Your task to perform on an android device: turn on data saver in the chrome app Image 0: 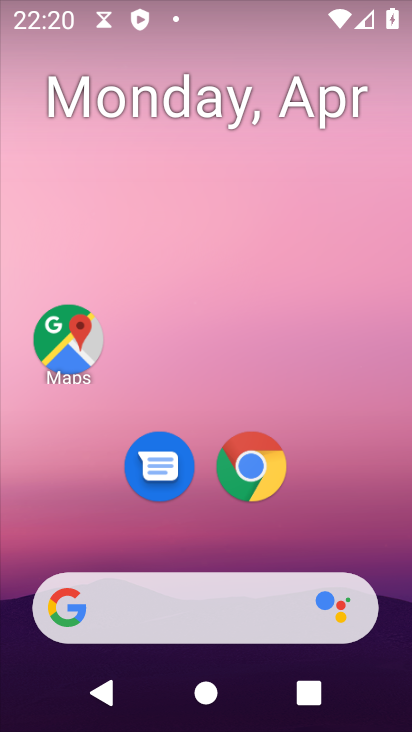
Step 0: click (252, 473)
Your task to perform on an android device: turn on data saver in the chrome app Image 1: 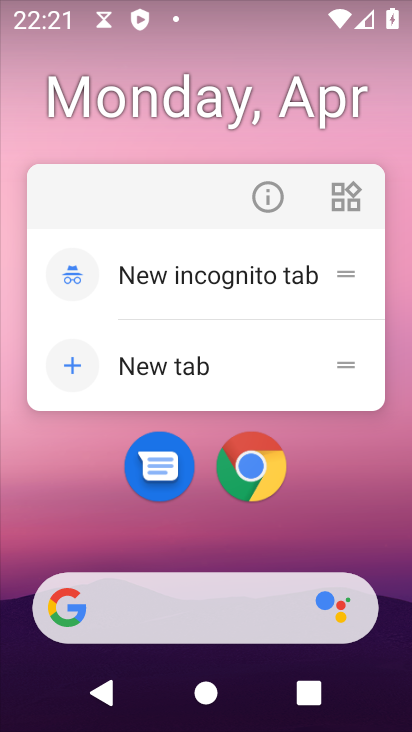
Step 1: click (236, 488)
Your task to perform on an android device: turn on data saver in the chrome app Image 2: 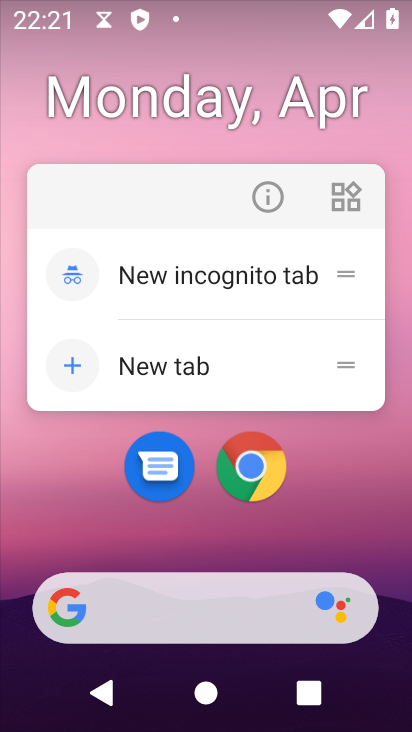
Step 2: click (264, 468)
Your task to perform on an android device: turn on data saver in the chrome app Image 3: 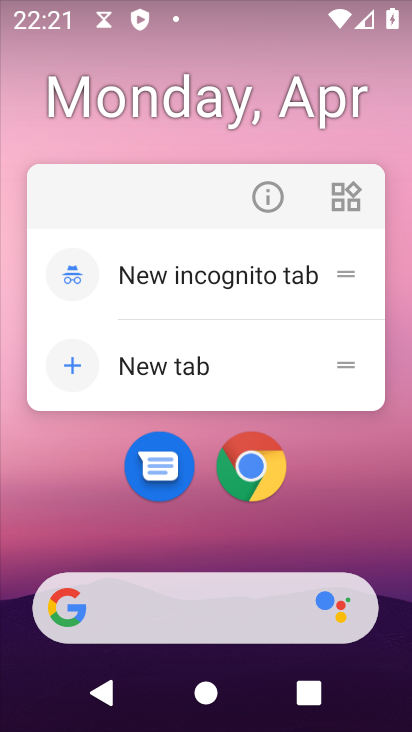
Step 3: click (311, 488)
Your task to perform on an android device: turn on data saver in the chrome app Image 4: 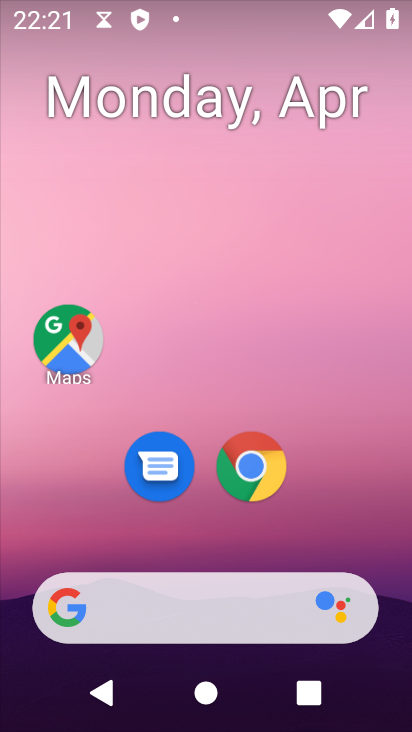
Step 4: click (284, 466)
Your task to perform on an android device: turn on data saver in the chrome app Image 5: 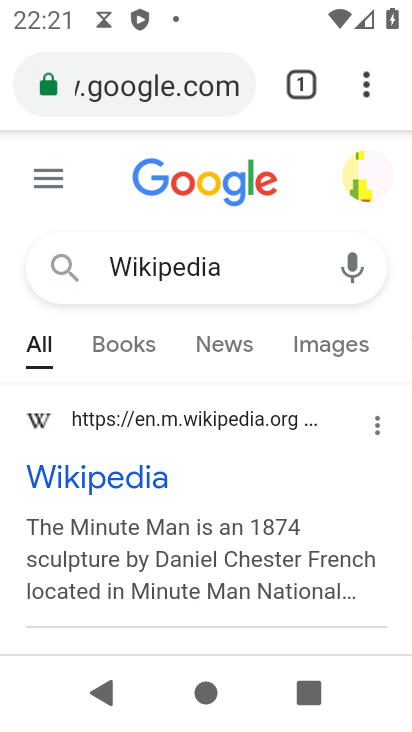
Step 5: click (367, 84)
Your task to perform on an android device: turn on data saver in the chrome app Image 6: 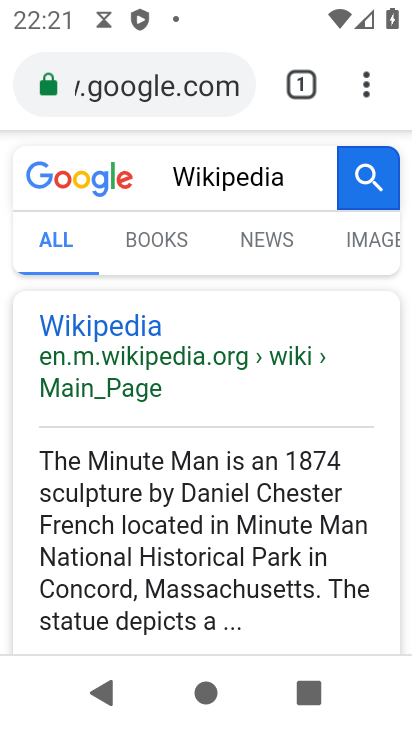
Step 6: click (367, 84)
Your task to perform on an android device: turn on data saver in the chrome app Image 7: 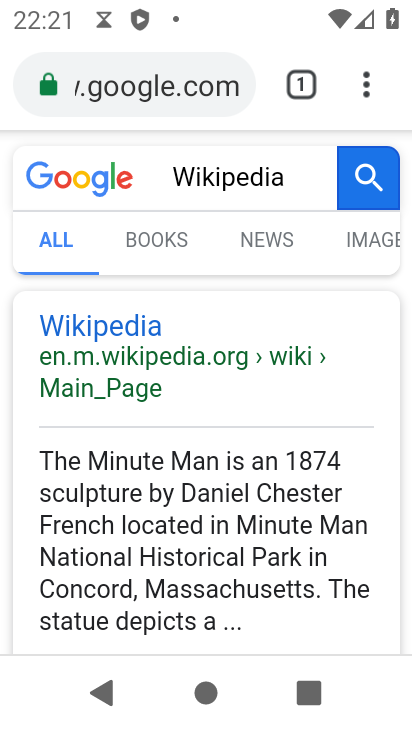
Step 7: click (367, 84)
Your task to perform on an android device: turn on data saver in the chrome app Image 8: 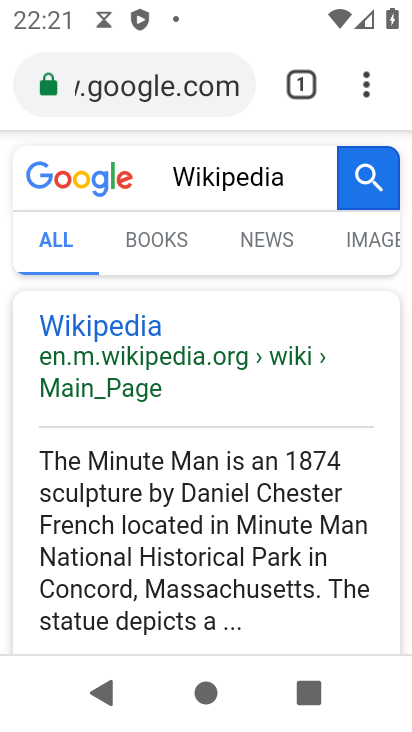
Step 8: click (367, 84)
Your task to perform on an android device: turn on data saver in the chrome app Image 9: 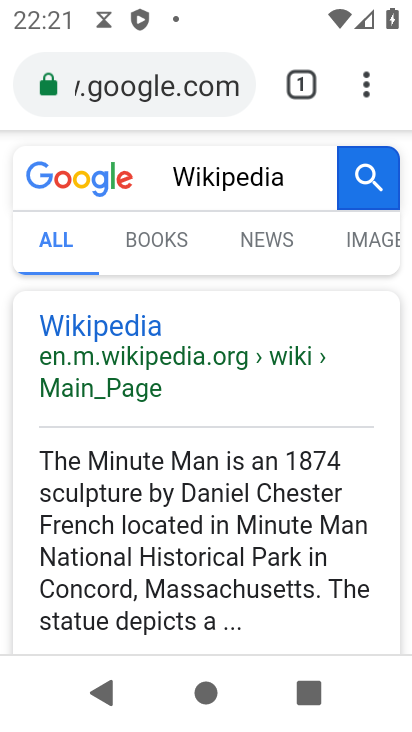
Step 9: click (367, 84)
Your task to perform on an android device: turn on data saver in the chrome app Image 10: 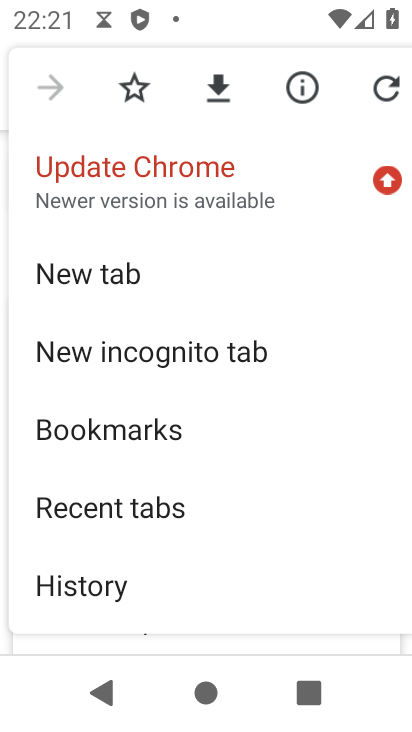
Step 10: drag from (120, 480) to (98, 242)
Your task to perform on an android device: turn on data saver in the chrome app Image 11: 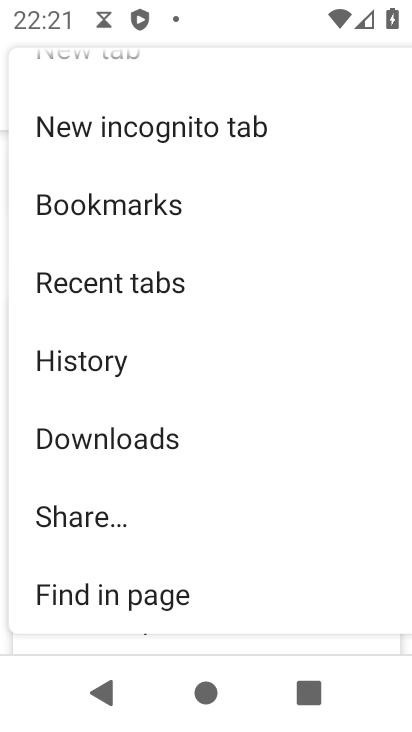
Step 11: drag from (92, 478) to (102, 234)
Your task to perform on an android device: turn on data saver in the chrome app Image 12: 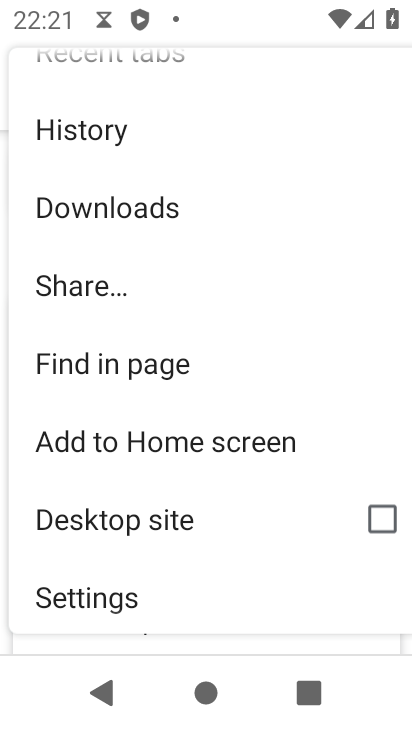
Step 12: drag from (109, 565) to (107, 312)
Your task to perform on an android device: turn on data saver in the chrome app Image 13: 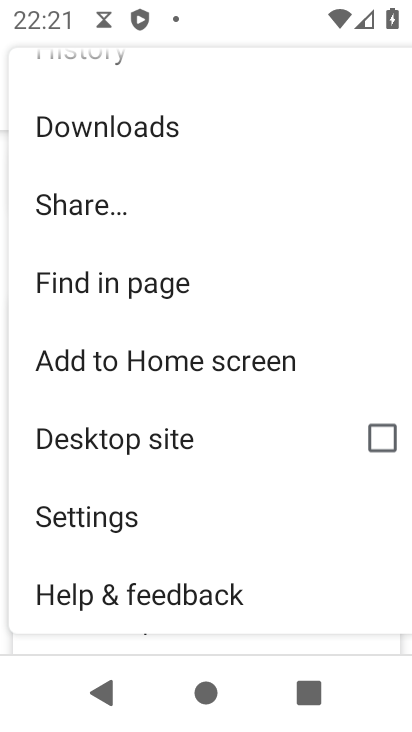
Step 13: drag from (133, 468) to (151, 256)
Your task to perform on an android device: turn on data saver in the chrome app Image 14: 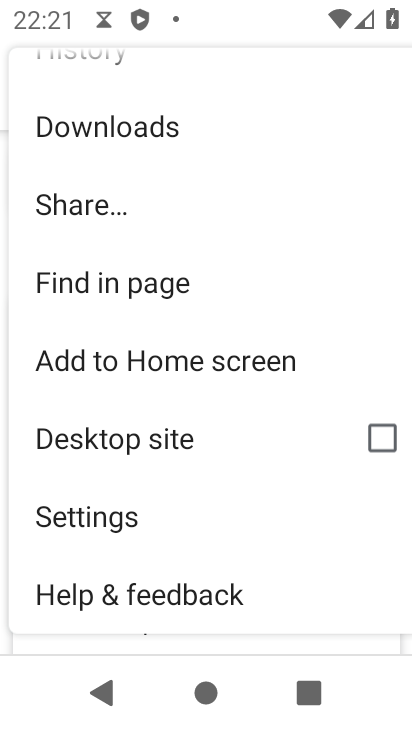
Step 14: click (111, 530)
Your task to perform on an android device: turn on data saver in the chrome app Image 15: 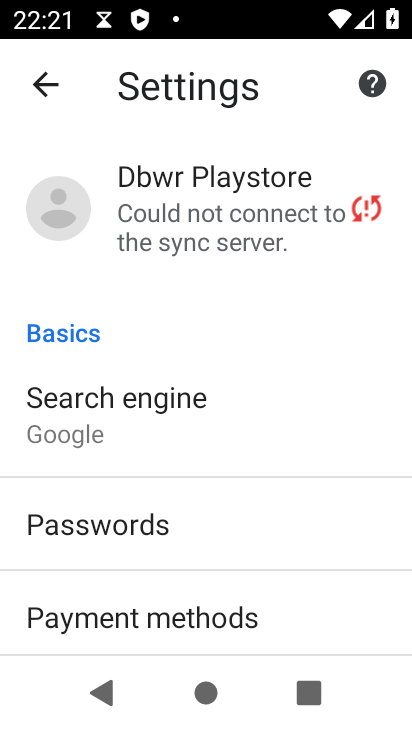
Step 15: drag from (110, 481) to (126, 297)
Your task to perform on an android device: turn on data saver in the chrome app Image 16: 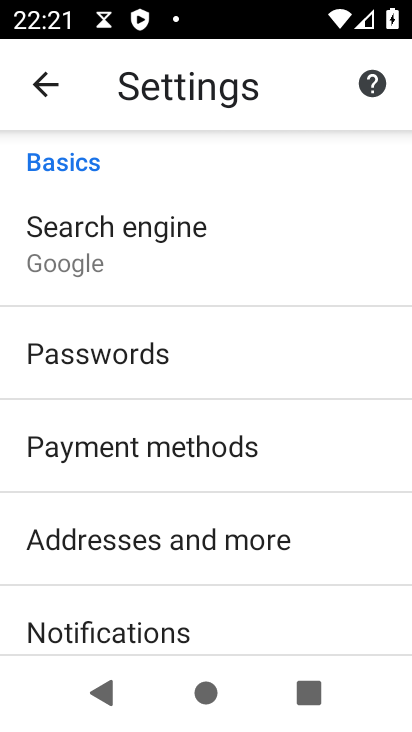
Step 16: drag from (106, 512) to (99, 274)
Your task to perform on an android device: turn on data saver in the chrome app Image 17: 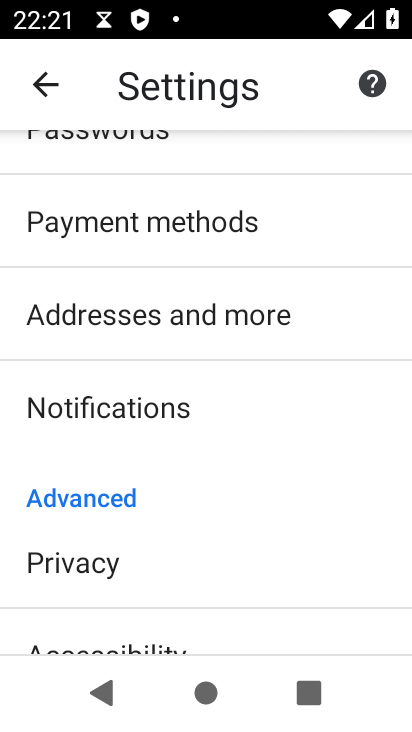
Step 17: drag from (128, 522) to (135, 264)
Your task to perform on an android device: turn on data saver in the chrome app Image 18: 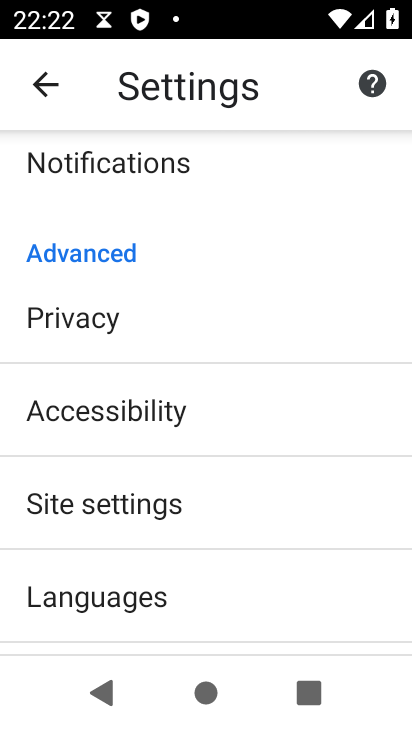
Step 18: drag from (124, 548) to (131, 315)
Your task to perform on an android device: turn on data saver in the chrome app Image 19: 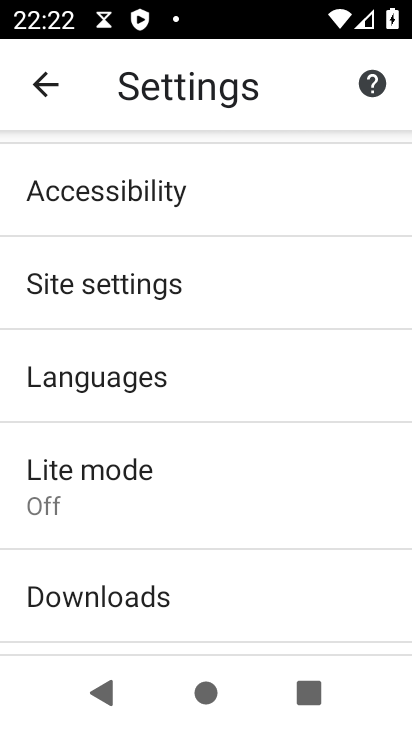
Step 19: click (118, 485)
Your task to perform on an android device: turn on data saver in the chrome app Image 20: 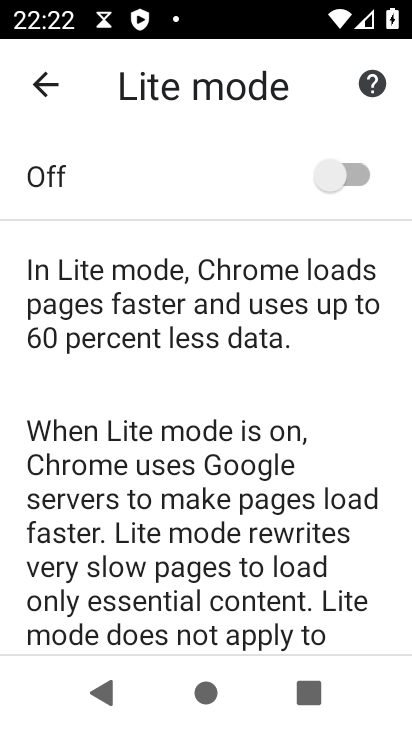
Step 20: click (355, 174)
Your task to perform on an android device: turn on data saver in the chrome app Image 21: 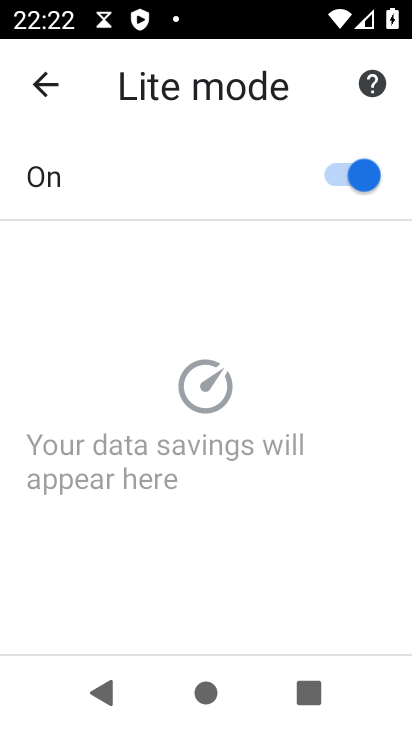
Step 21: task complete